Your task to perform on an android device: Open location settings Image 0: 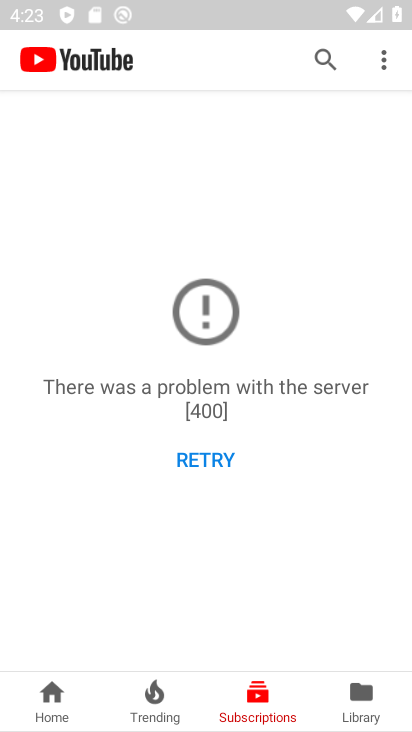
Step 0: press home button
Your task to perform on an android device: Open location settings Image 1: 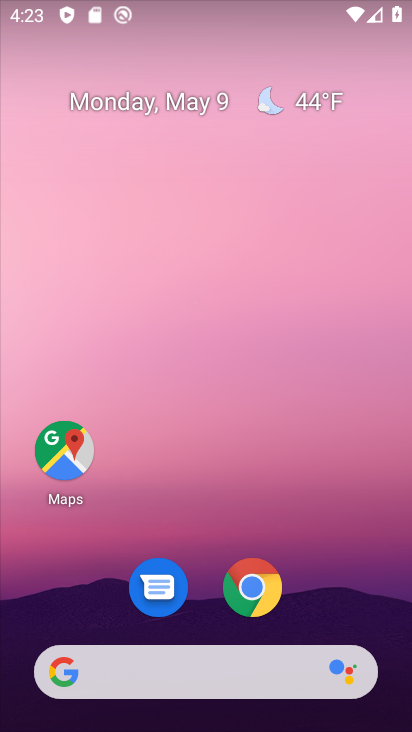
Step 1: drag from (196, 604) to (206, 73)
Your task to perform on an android device: Open location settings Image 2: 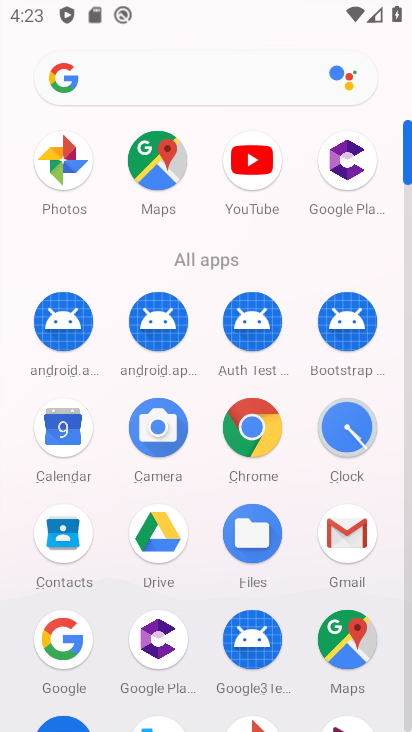
Step 2: drag from (203, 585) to (228, 95)
Your task to perform on an android device: Open location settings Image 3: 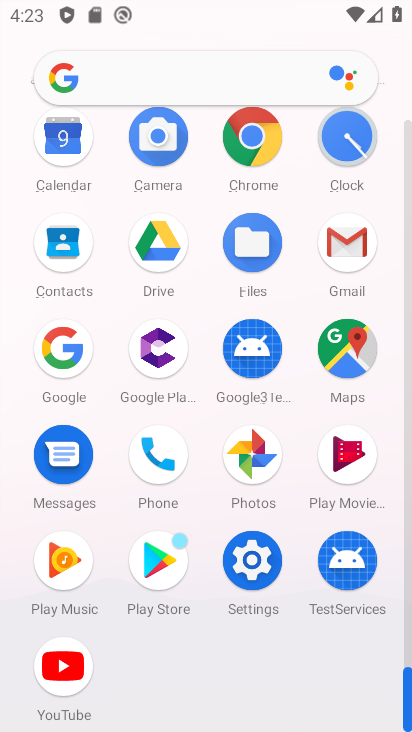
Step 3: click (253, 571)
Your task to perform on an android device: Open location settings Image 4: 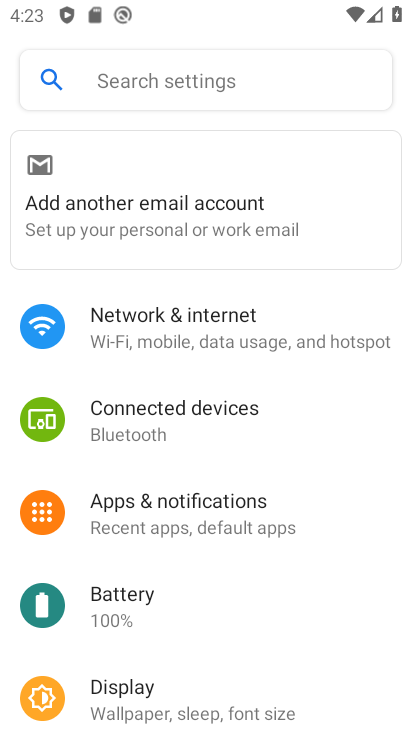
Step 4: drag from (252, 624) to (231, 70)
Your task to perform on an android device: Open location settings Image 5: 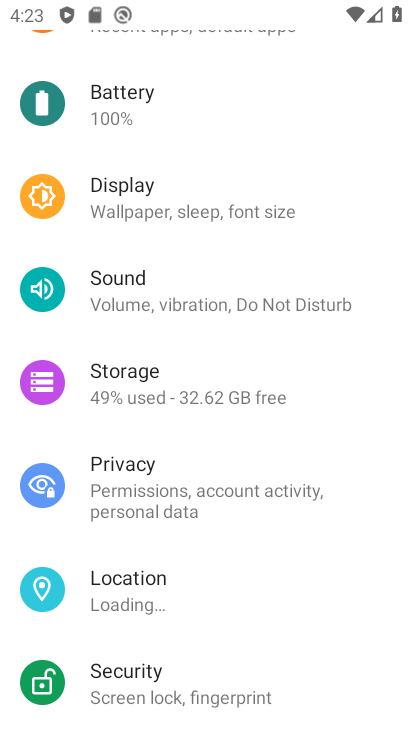
Step 5: click (143, 588)
Your task to perform on an android device: Open location settings Image 6: 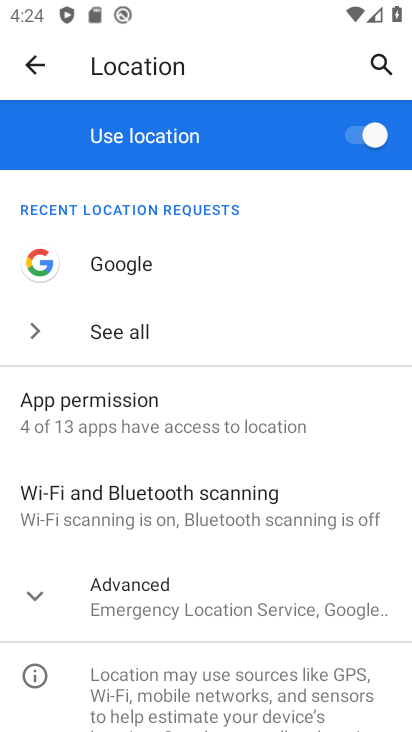
Step 6: task complete